Your task to perform on an android device: turn on sleep mode Image 0: 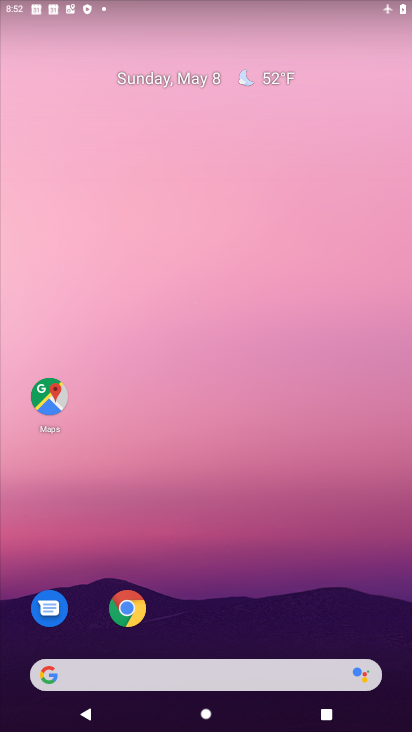
Step 0: drag from (253, 538) to (2, 335)
Your task to perform on an android device: turn on sleep mode Image 1: 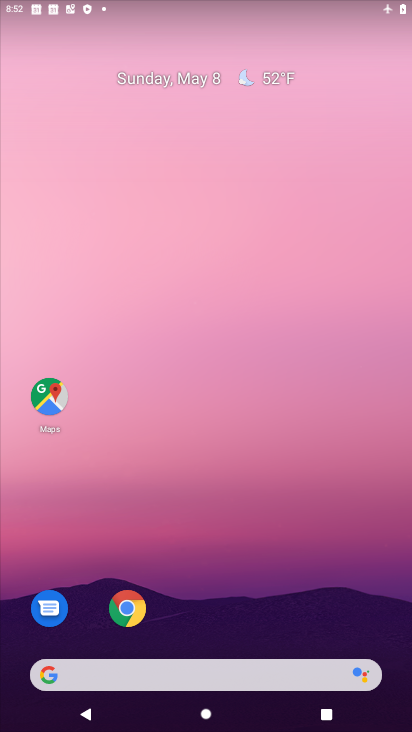
Step 1: drag from (14, 655) to (55, 68)
Your task to perform on an android device: turn on sleep mode Image 2: 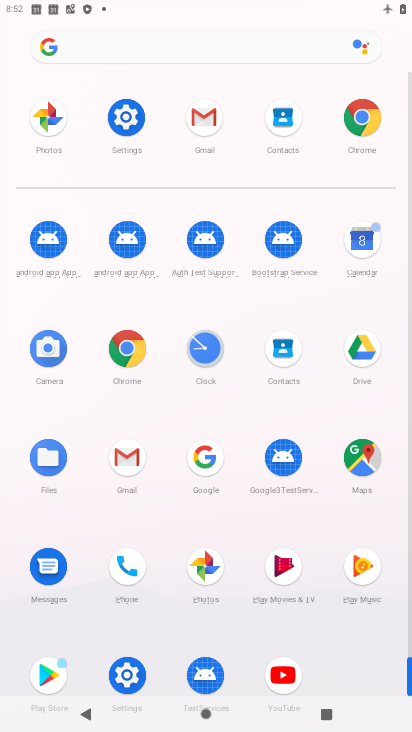
Step 2: click (125, 114)
Your task to perform on an android device: turn on sleep mode Image 3: 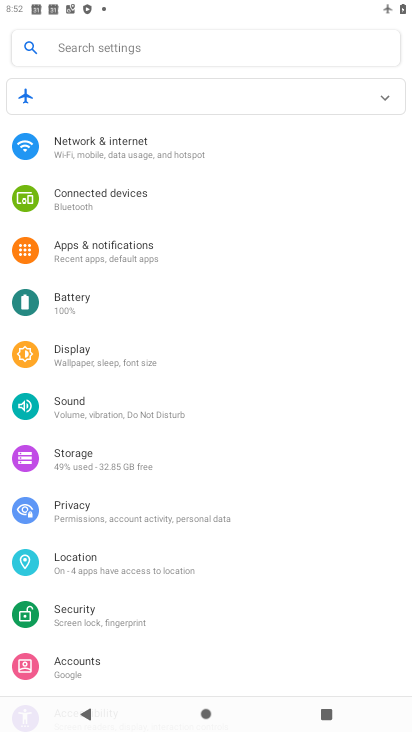
Step 3: click (95, 359)
Your task to perform on an android device: turn on sleep mode Image 4: 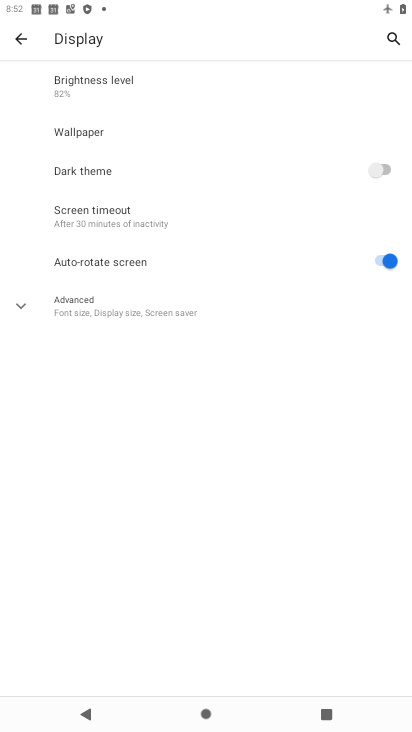
Step 4: click (51, 311)
Your task to perform on an android device: turn on sleep mode Image 5: 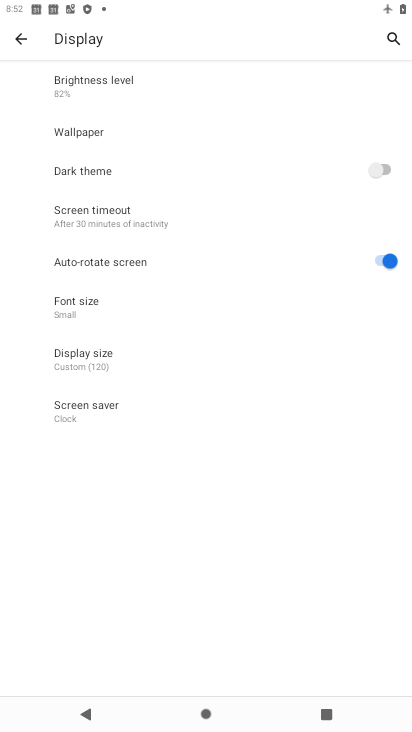
Step 5: task complete